Your task to perform on an android device: check the backup settings in the google photos Image 0: 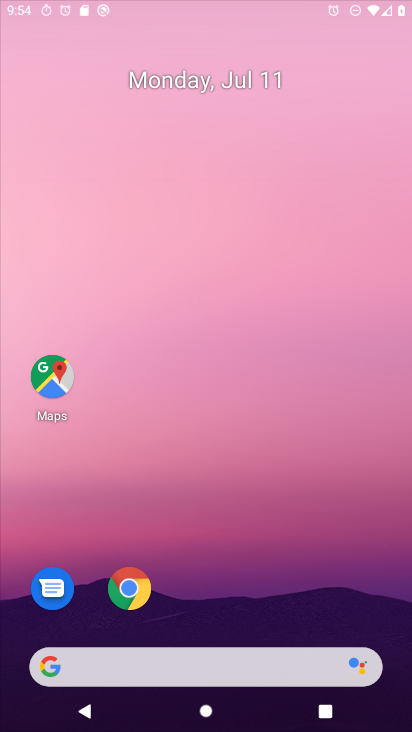
Step 0: drag from (168, 663) to (347, 161)
Your task to perform on an android device: check the backup settings in the google photos Image 1: 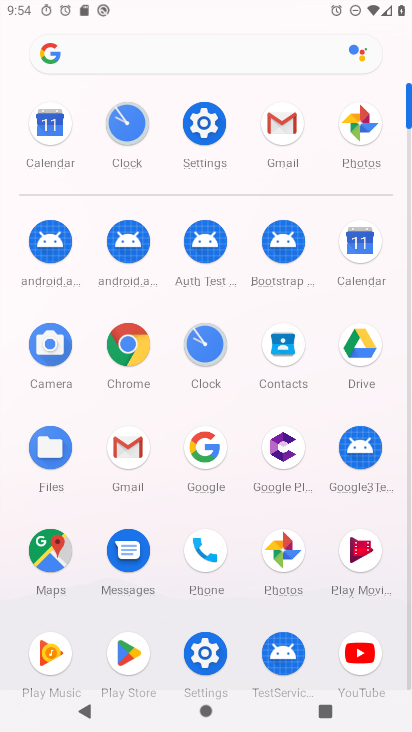
Step 1: click (276, 559)
Your task to perform on an android device: check the backup settings in the google photos Image 2: 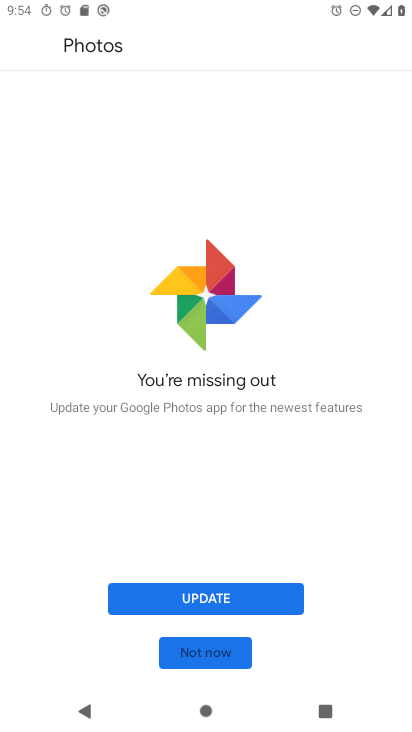
Step 2: click (216, 586)
Your task to perform on an android device: check the backup settings in the google photos Image 3: 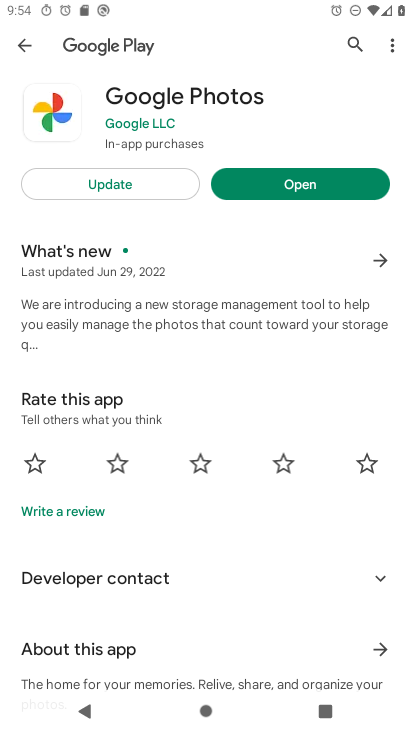
Step 3: click (132, 170)
Your task to perform on an android device: check the backup settings in the google photos Image 4: 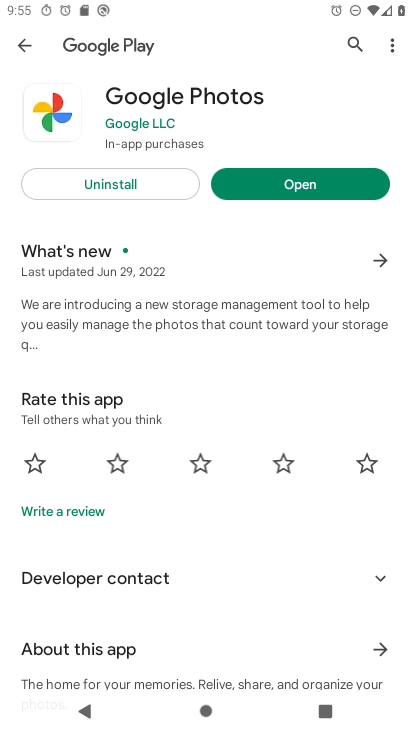
Step 4: click (316, 181)
Your task to perform on an android device: check the backup settings in the google photos Image 5: 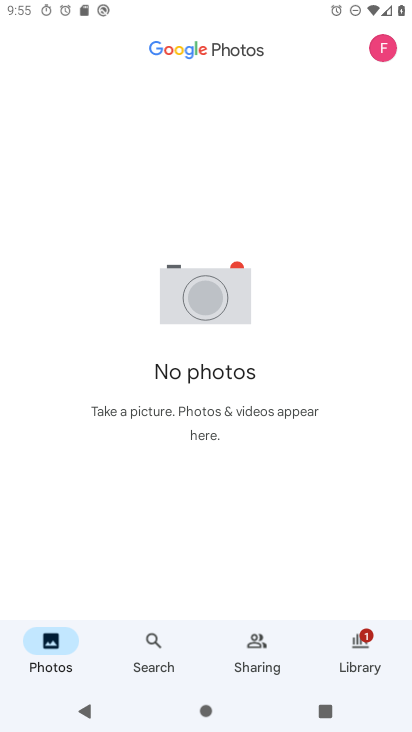
Step 5: click (373, 53)
Your task to perform on an android device: check the backup settings in the google photos Image 6: 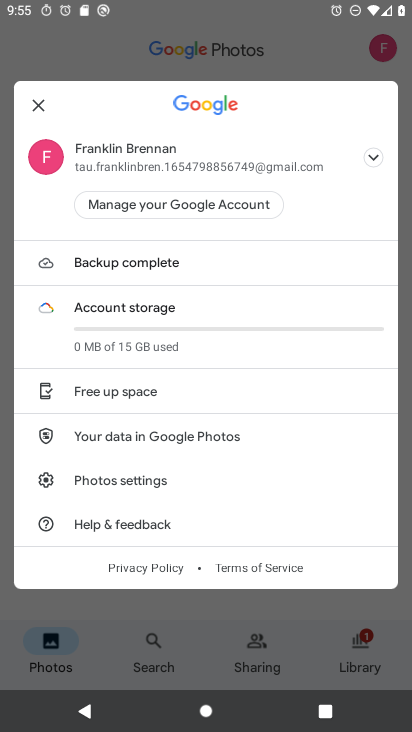
Step 6: click (151, 485)
Your task to perform on an android device: check the backup settings in the google photos Image 7: 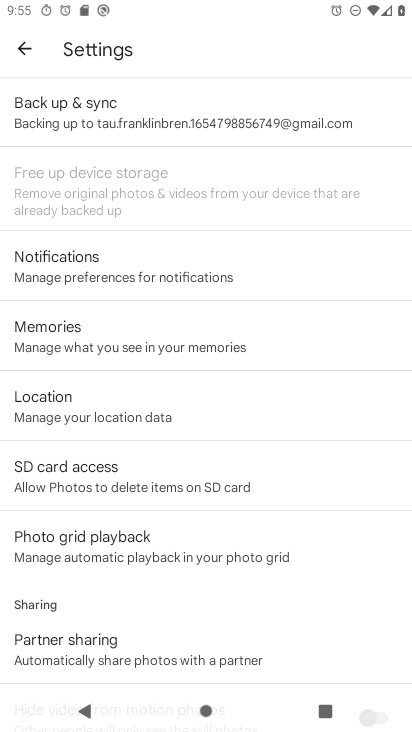
Step 7: click (133, 109)
Your task to perform on an android device: check the backup settings in the google photos Image 8: 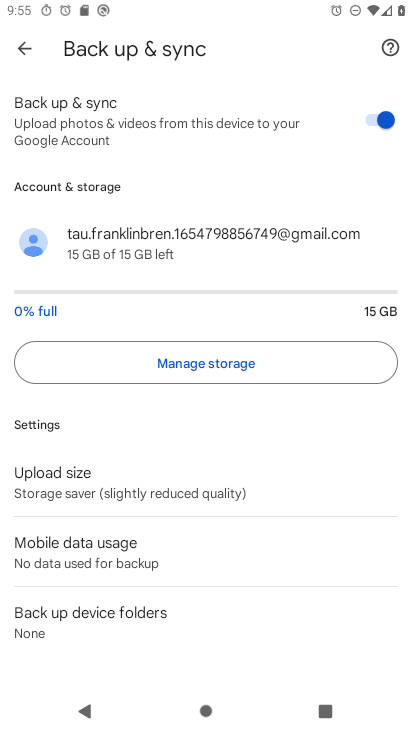
Step 8: task complete